Your task to perform on an android device: Go to privacy settings Image 0: 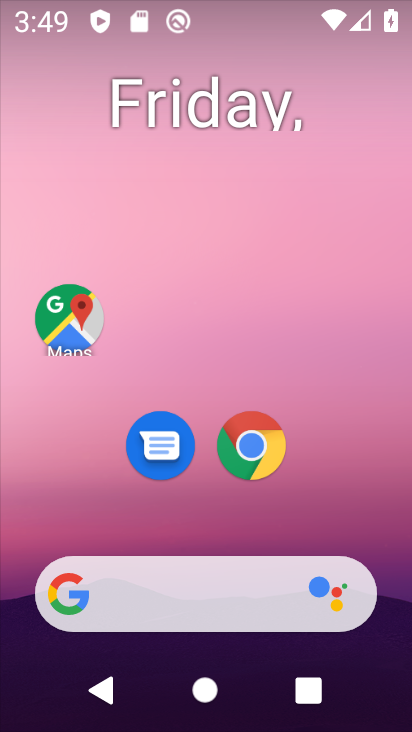
Step 0: drag from (398, 652) to (267, 13)
Your task to perform on an android device: Go to privacy settings Image 1: 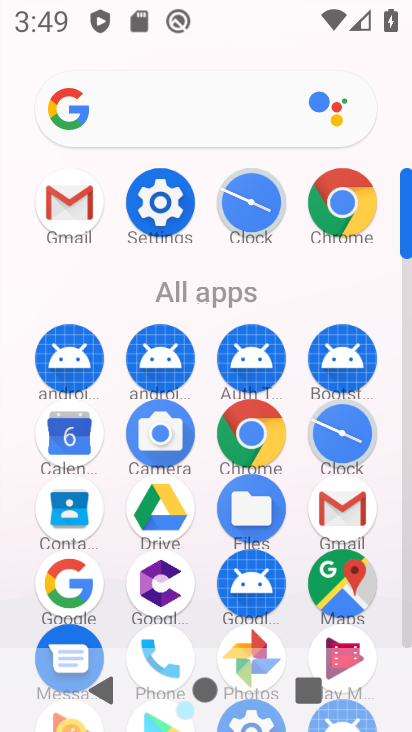
Step 1: drag from (22, 599) to (22, 256)
Your task to perform on an android device: Go to privacy settings Image 2: 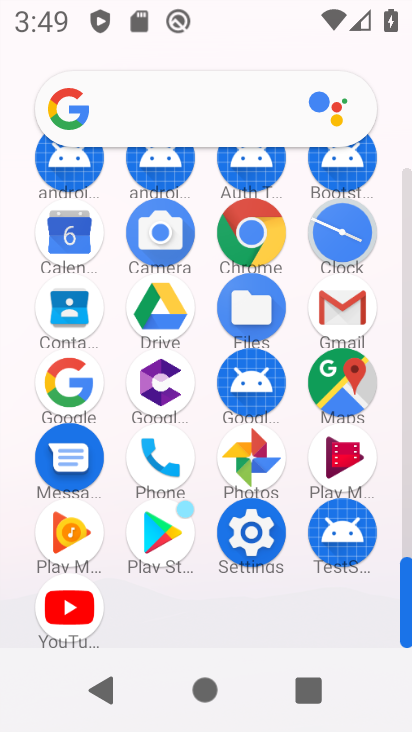
Step 2: click (248, 227)
Your task to perform on an android device: Go to privacy settings Image 3: 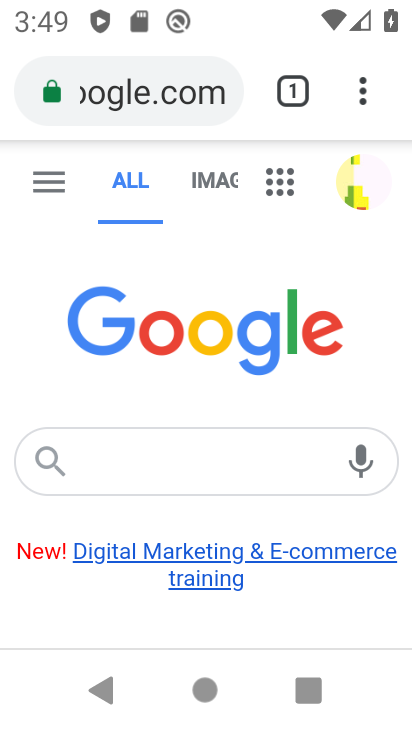
Step 3: drag from (362, 92) to (179, 474)
Your task to perform on an android device: Go to privacy settings Image 4: 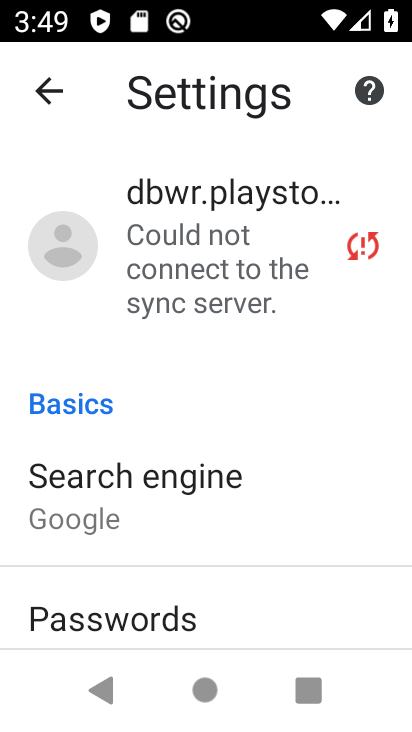
Step 4: drag from (199, 556) to (247, 144)
Your task to perform on an android device: Go to privacy settings Image 5: 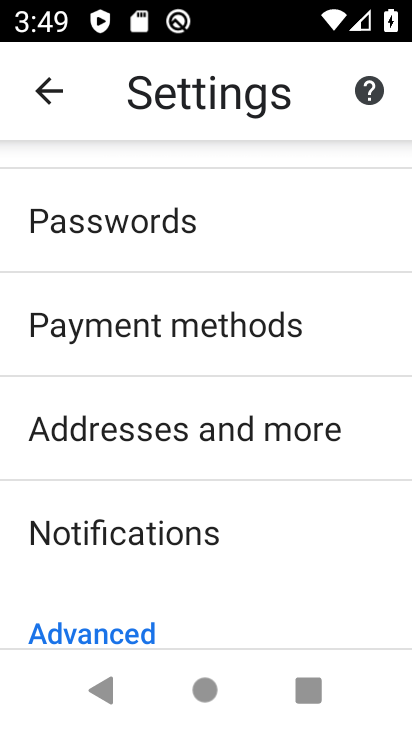
Step 5: drag from (246, 588) to (248, 146)
Your task to perform on an android device: Go to privacy settings Image 6: 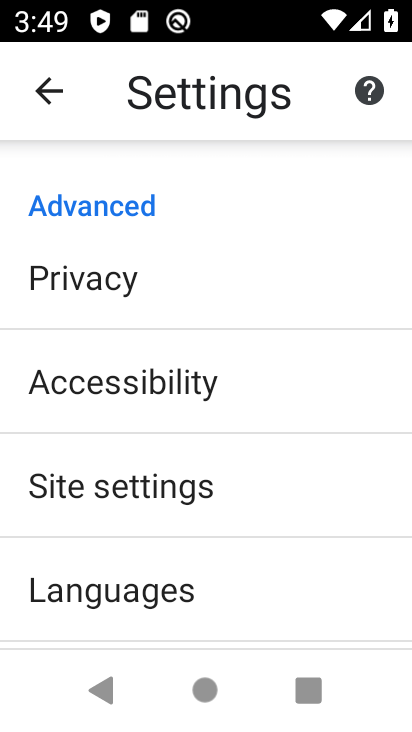
Step 6: click (208, 481)
Your task to perform on an android device: Go to privacy settings Image 7: 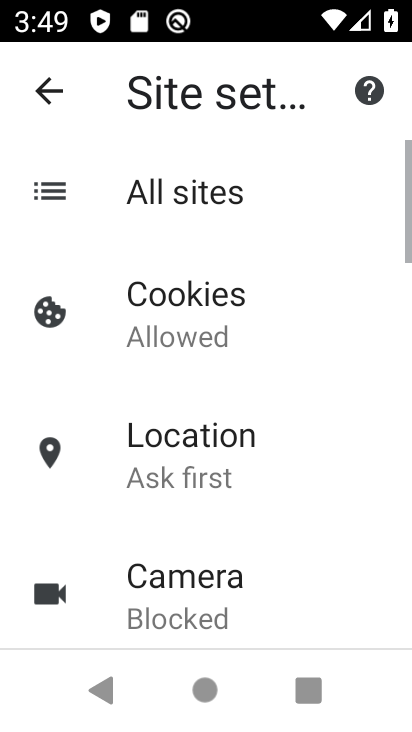
Step 7: drag from (271, 510) to (259, 110)
Your task to perform on an android device: Go to privacy settings Image 8: 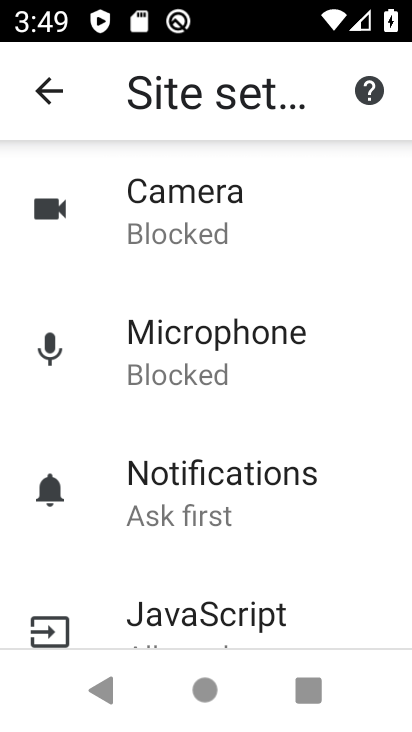
Step 8: drag from (266, 552) to (247, 184)
Your task to perform on an android device: Go to privacy settings Image 9: 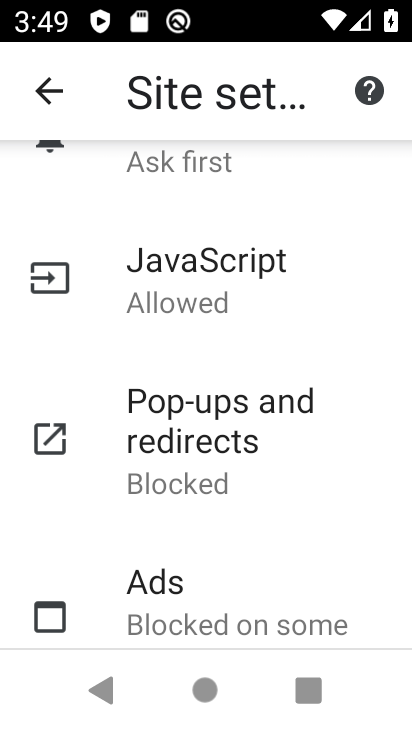
Step 9: drag from (315, 258) to (345, 623)
Your task to perform on an android device: Go to privacy settings Image 10: 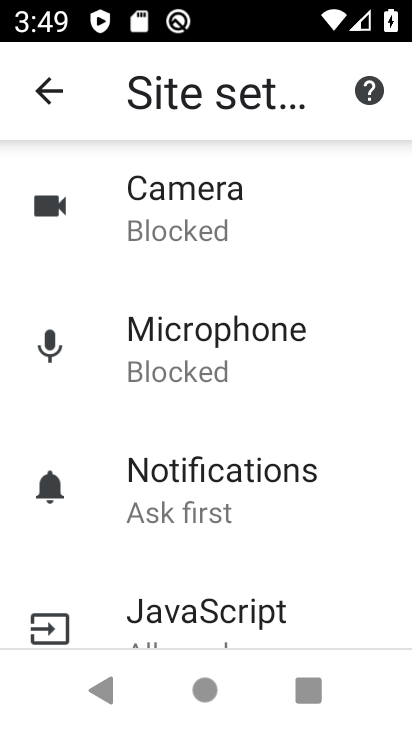
Step 10: click (47, 91)
Your task to perform on an android device: Go to privacy settings Image 11: 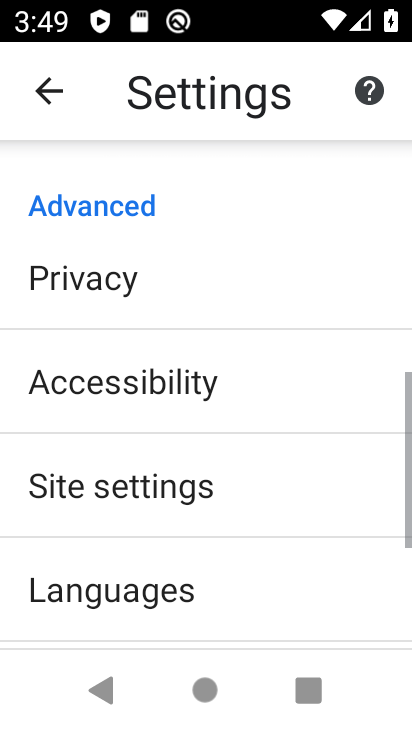
Step 11: click (219, 306)
Your task to perform on an android device: Go to privacy settings Image 12: 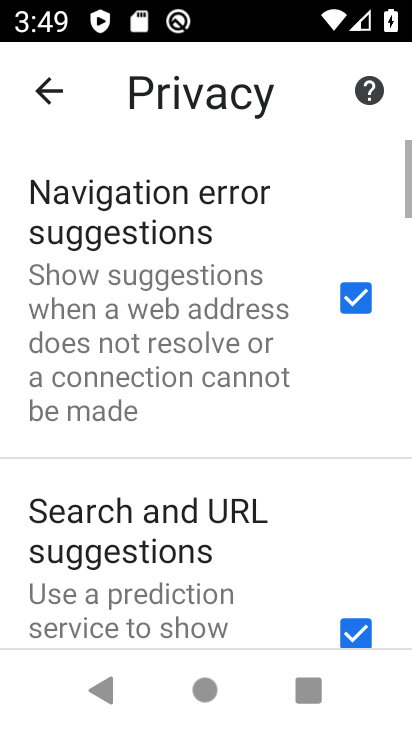
Step 12: task complete